Your task to perform on an android device: move a message to another label in the gmail app Image 0: 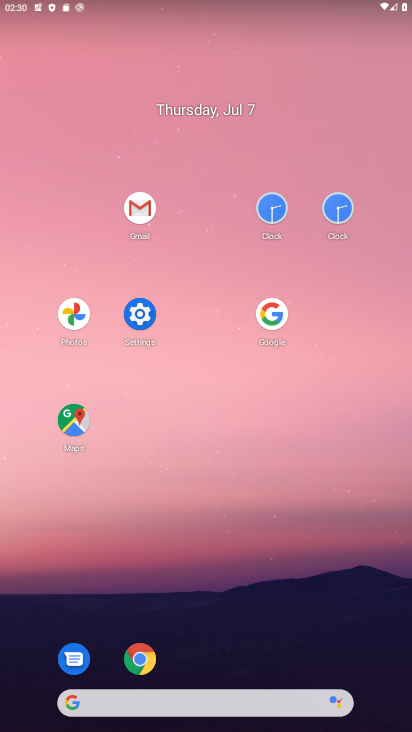
Step 0: click (129, 199)
Your task to perform on an android device: move a message to another label in the gmail app Image 1: 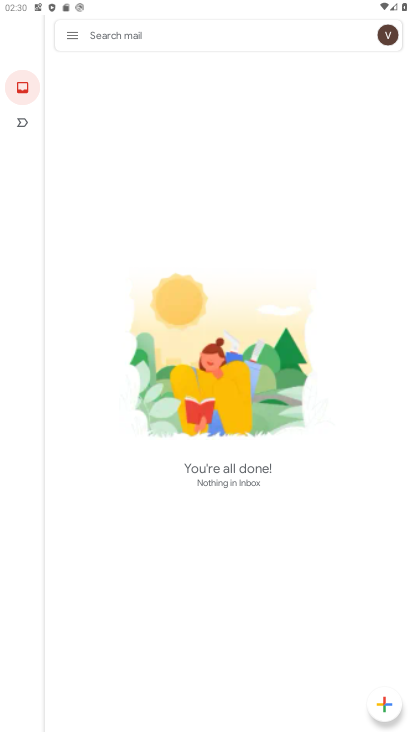
Step 1: task complete